Your task to perform on an android device: Open calendar and show me the third week of next month Image 0: 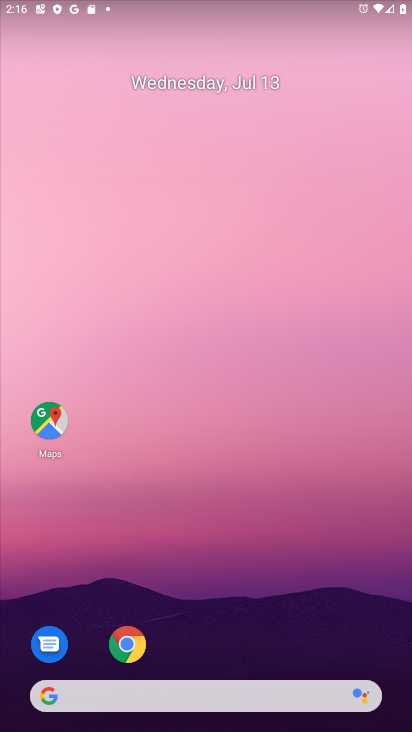
Step 0: drag from (185, 655) to (169, 59)
Your task to perform on an android device: Open calendar and show me the third week of next month Image 1: 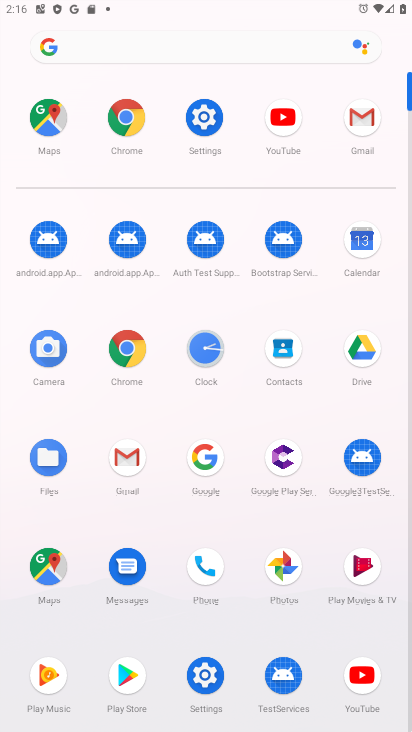
Step 1: click (367, 245)
Your task to perform on an android device: Open calendar and show me the third week of next month Image 2: 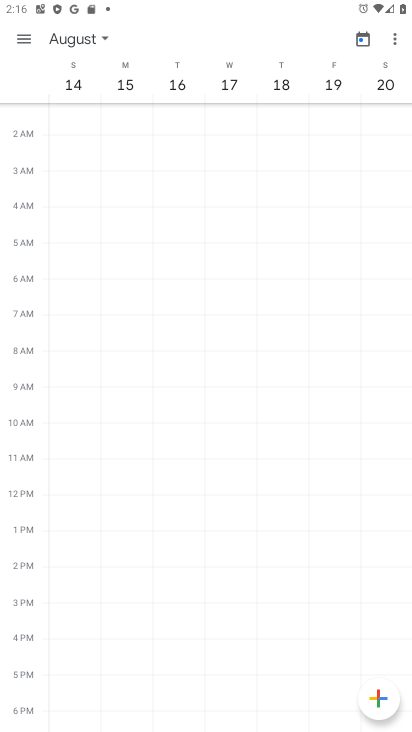
Step 2: click (22, 38)
Your task to perform on an android device: Open calendar and show me the third week of next month Image 3: 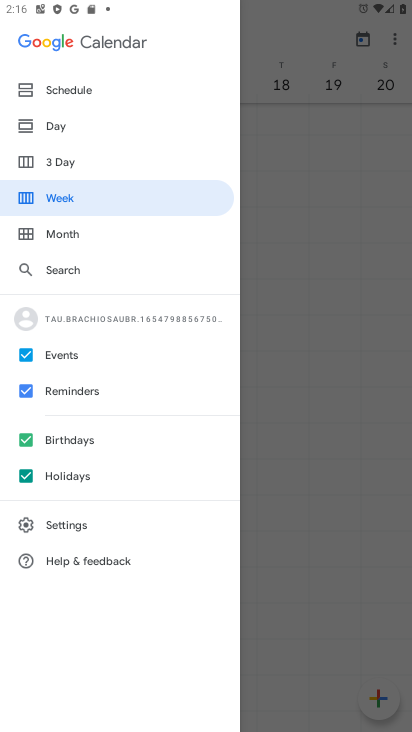
Step 3: click (60, 197)
Your task to perform on an android device: Open calendar and show me the third week of next month Image 4: 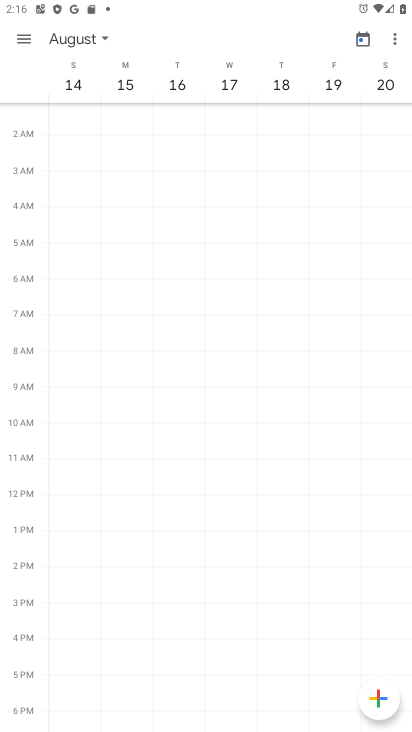
Step 4: task complete